Your task to perform on an android device: Clear the cart on costco.com. Search for beats solo 3 on costco.com, select the first entry, add it to the cart, then select checkout. Image 0: 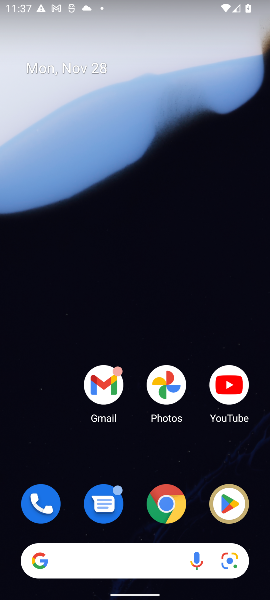
Step 0: click (164, 507)
Your task to perform on an android device: Clear the cart on costco.com. Search for beats solo 3 on costco.com, select the first entry, add it to the cart, then select checkout. Image 1: 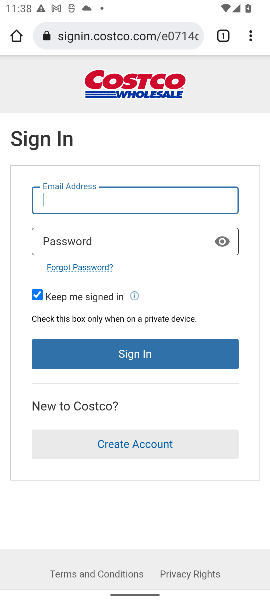
Step 1: press back button
Your task to perform on an android device: Clear the cart on costco.com. Search for beats solo 3 on costco.com, select the first entry, add it to the cart, then select checkout. Image 2: 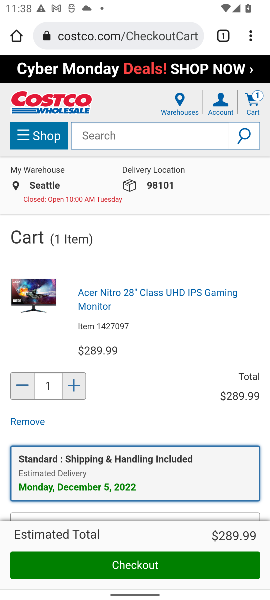
Step 2: drag from (169, 359) to (177, 225)
Your task to perform on an android device: Clear the cart on costco.com. Search for beats solo 3 on costco.com, select the first entry, add it to the cart, then select checkout. Image 3: 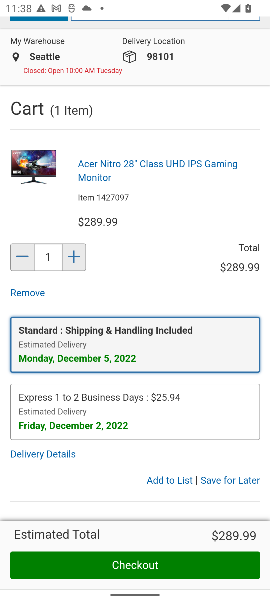
Step 3: click (229, 484)
Your task to perform on an android device: Clear the cart on costco.com. Search for beats solo 3 on costco.com, select the first entry, add it to the cart, then select checkout. Image 4: 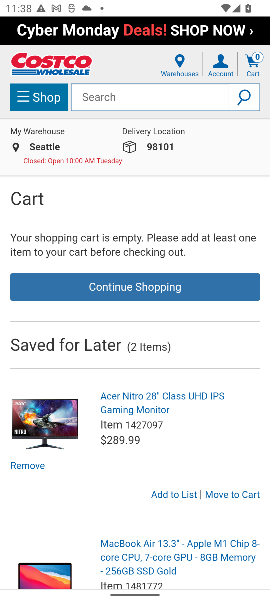
Step 4: click (102, 91)
Your task to perform on an android device: Clear the cart on costco.com. Search for beats solo 3 on costco.com, select the first entry, add it to the cart, then select checkout. Image 5: 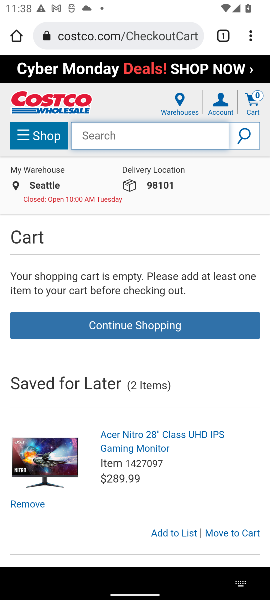
Step 5: type "beats solo 3"
Your task to perform on an android device: Clear the cart on costco.com. Search for beats solo 3 on costco.com, select the first entry, add it to the cart, then select checkout. Image 6: 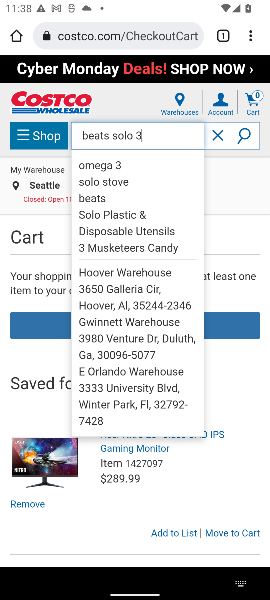
Step 6: click (242, 138)
Your task to perform on an android device: Clear the cart on costco.com. Search for beats solo 3 on costco.com, select the first entry, add it to the cart, then select checkout. Image 7: 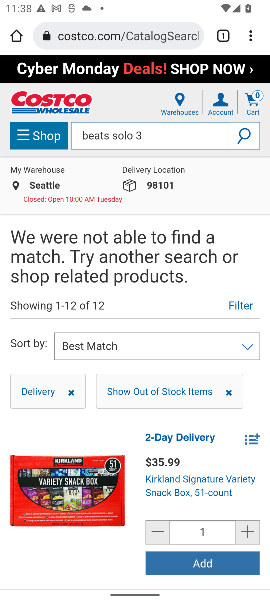
Step 7: task complete